Your task to perform on an android device: show emergency info Image 0: 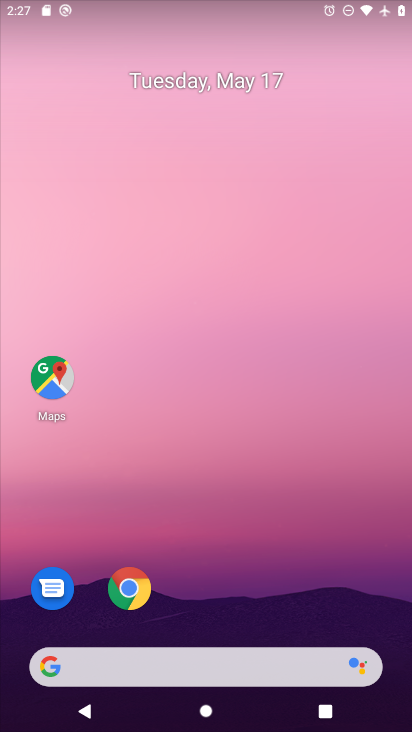
Step 0: drag from (205, 617) to (127, 135)
Your task to perform on an android device: show emergency info Image 1: 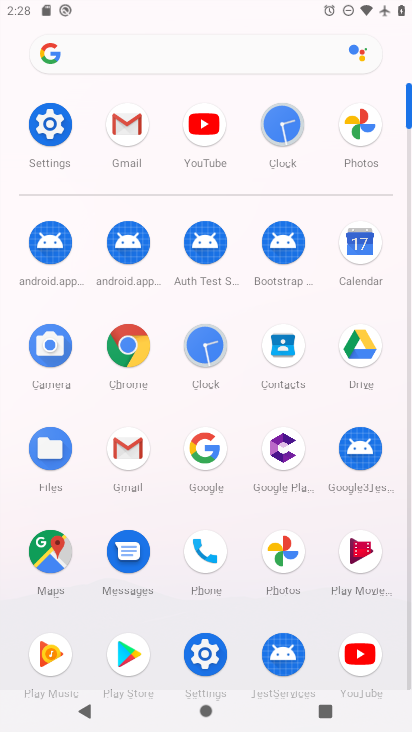
Step 1: click (54, 143)
Your task to perform on an android device: show emergency info Image 2: 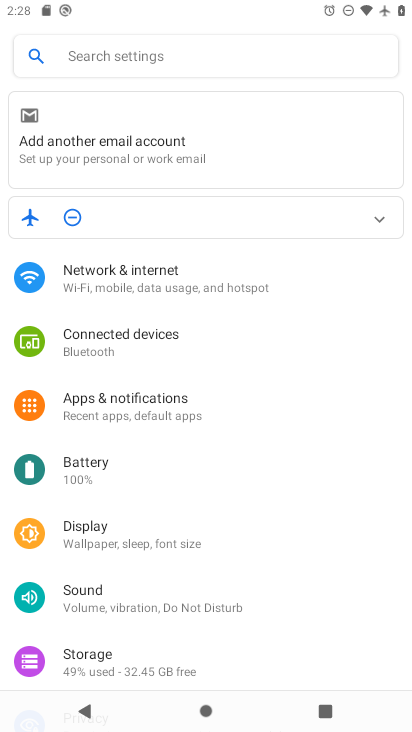
Step 2: drag from (137, 633) to (172, 103)
Your task to perform on an android device: show emergency info Image 3: 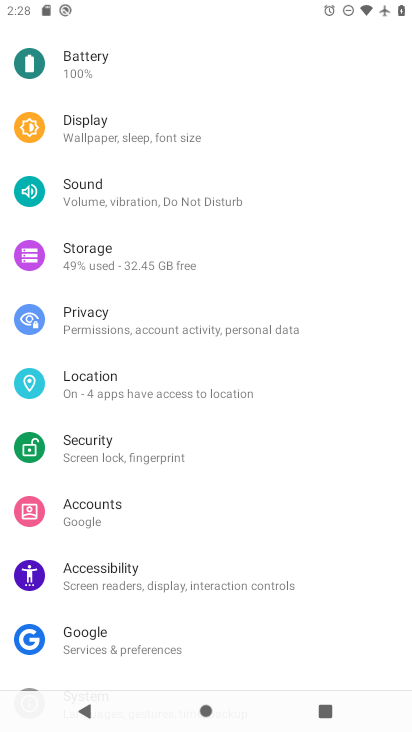
Step 3: drag from (124, 657) to (105, 185)
Your task to perform on an android device: show emergency info Image 4: 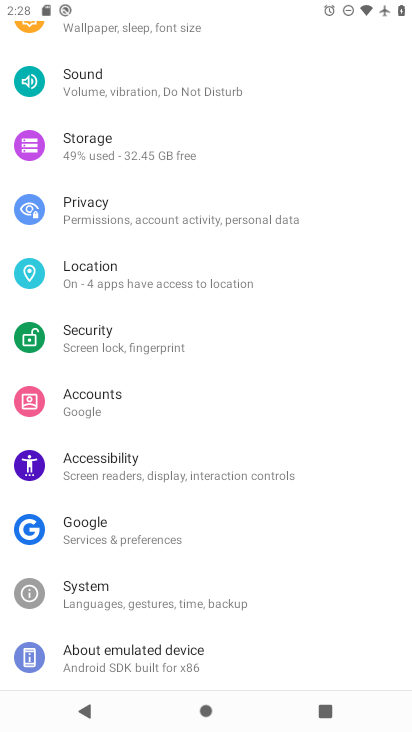
Step 4: click (135, 671)
Your task to perform on an android device: show emergency info Image 5: 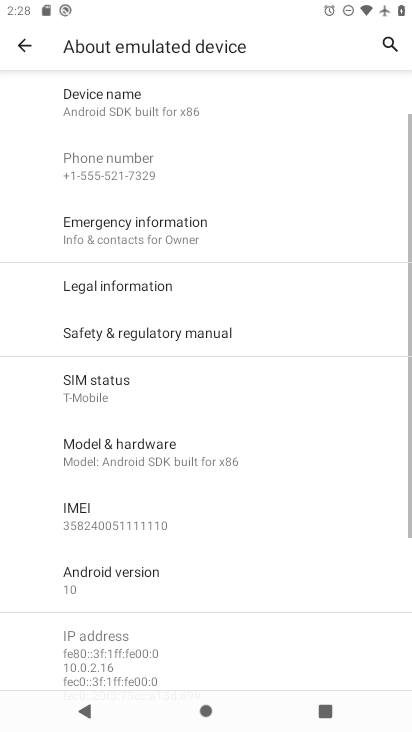
Step 5: click (175, 243)
Your task to perform on an android device: show emergency info Image 6: 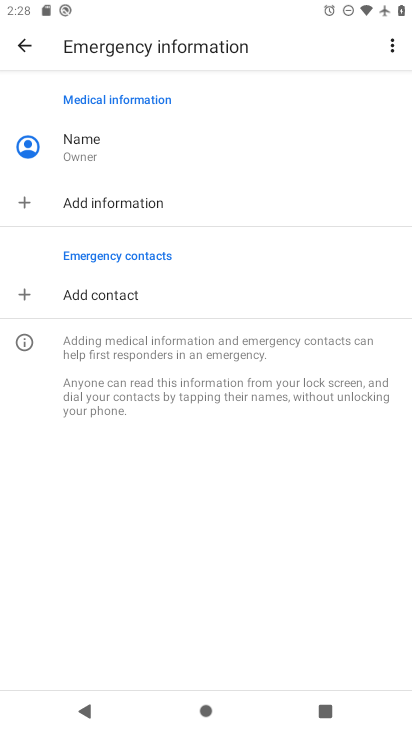
Step 6: task complete